Your task to perform on an android device: Open CNN.com Image 0: 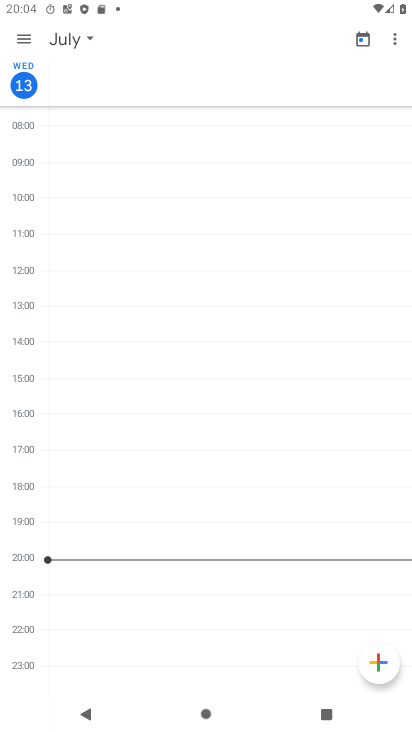
Step 0: press home button
Your task to perform on an android device: Open CNN.com Image 1: 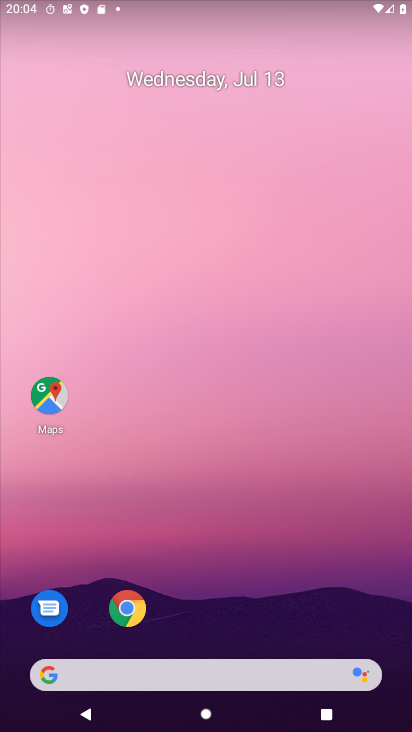
Step 1: drag from (221, 653) to (222, 216)
Your task to perform on an android device: Open CNN.com Image 2: 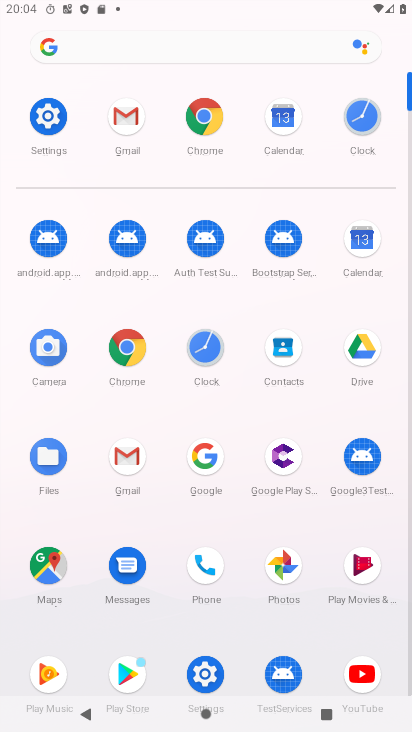
Step 2: click (195, 126)
Your task to perform on an android device: Open CNN.com Image 3: 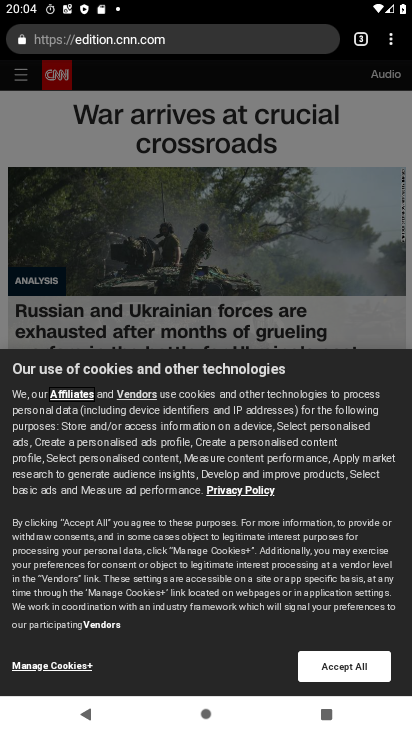
Step 3: task complete